Your task to perform on an android device: Open display settings Image 0: 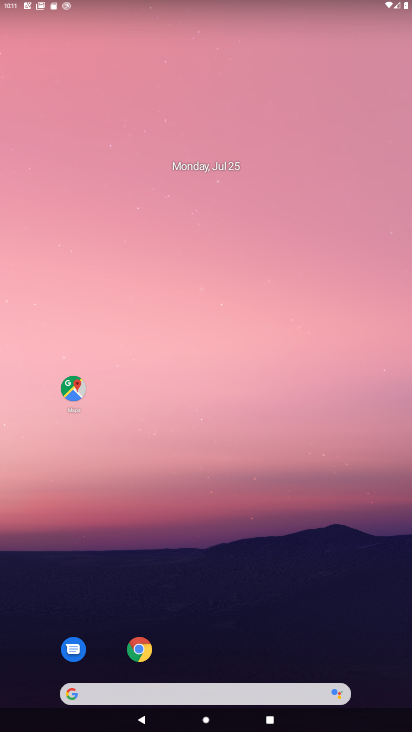
Step 0: drag from (373, 656) to (294, 129)
Your task to perform on an android device: Open display settings Image 1: 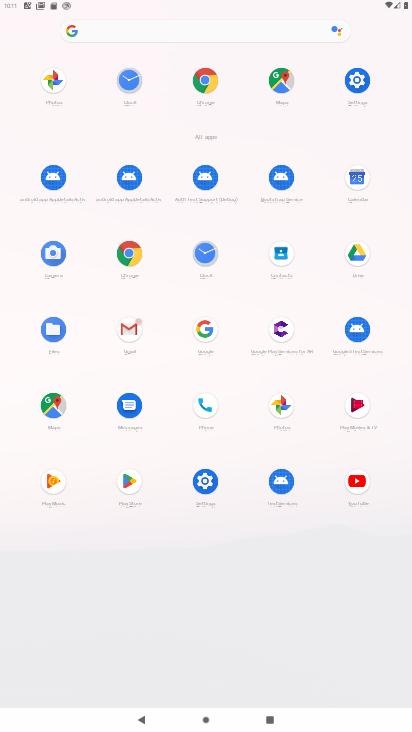
Step 1: click (206, 482)
Your task to perform on an android device: Open display settings Image 2: 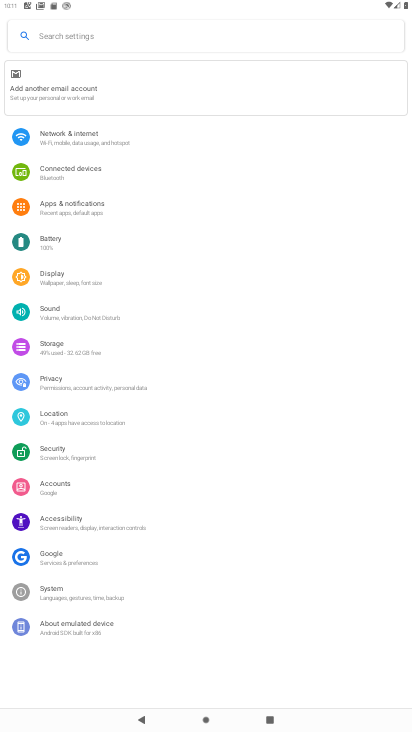
Step 2: click (47, 272)
Your task to perform on an android device: Open display settings Image 3: 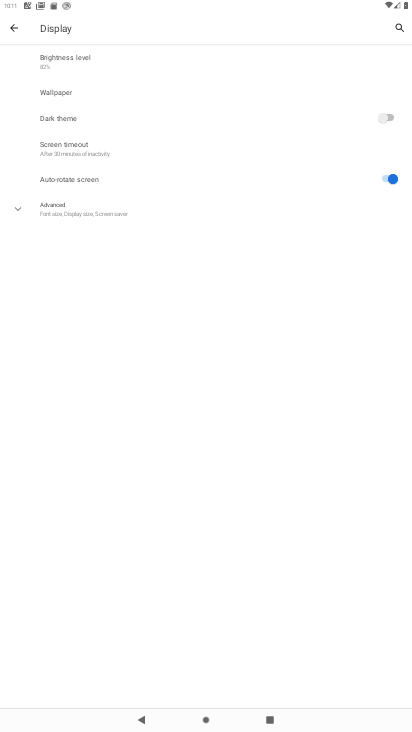
Step 3: click (16, 209)
Your task to perform on an android device: Open display settings Image 4: 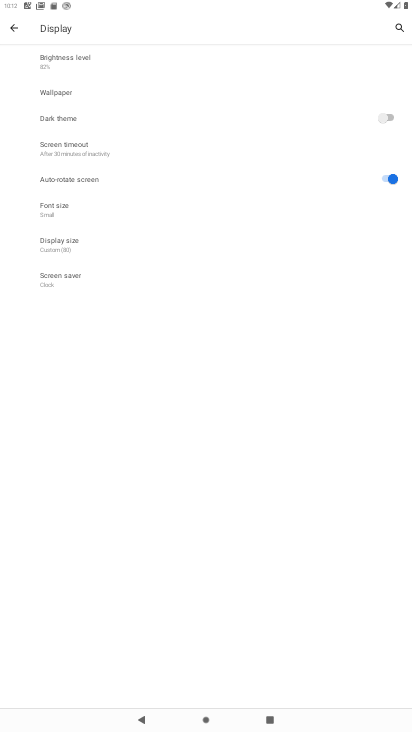
Step 4: task complete